Your task to perform on an android device: turn on showing notifications on the lock screen Image 0: 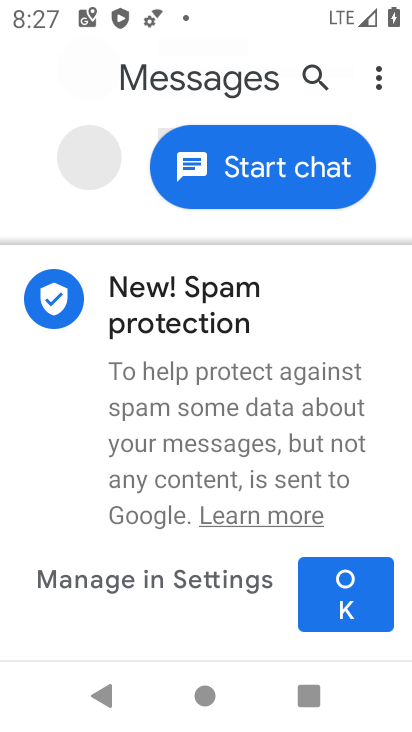
Step 0: press home button
Your task to perform on an android device: turn on showing notifications on the lock screen Image 1: 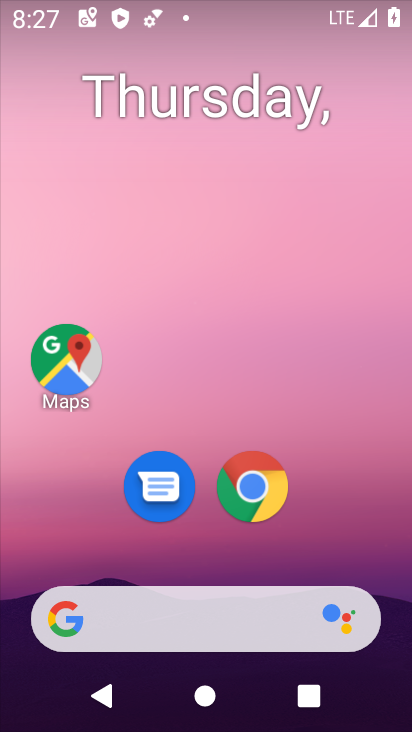
Step 1: drag from (191, 554) to (206, 252)
Your task to perform on an android device: turn on showing notifications on the lock screen Image 2: 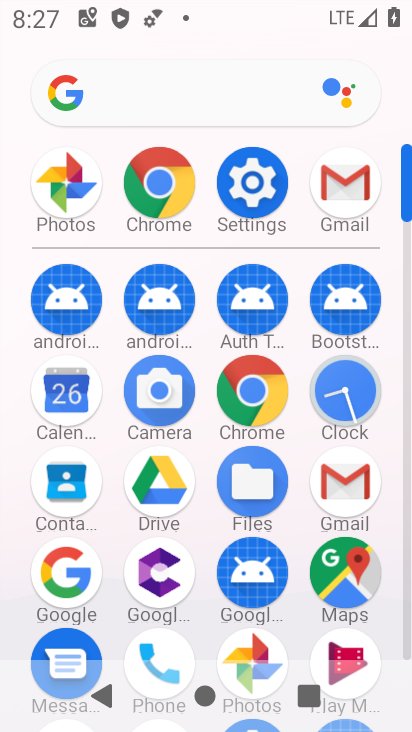
Step 2: click (267, 200)
Your task to perform on an android device: turn on showing notifications on the lock screen Image 3: 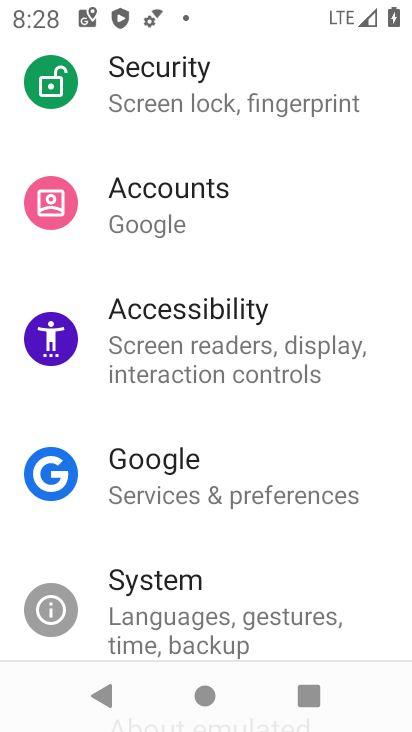
Step 3: drag from (120, 172) to (229, 519)
Your task to perform on an android device: turn on showing notifications on the lock screen Image 4: 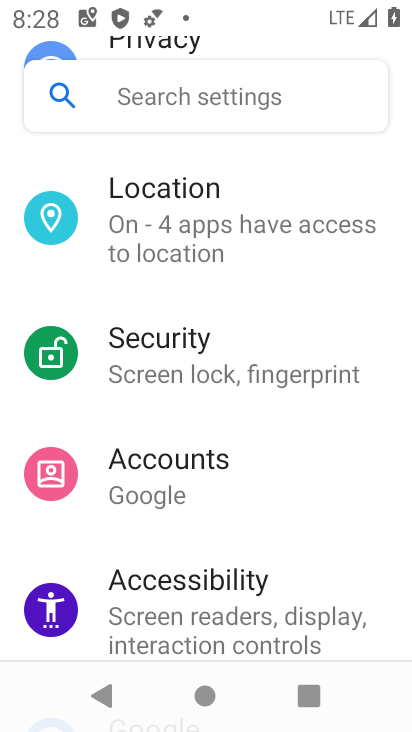
Step 4: drag from (140, 210) to (226, 682)
Your task to perform on an android device: turn on showing notifications on the lock screen Image 5: 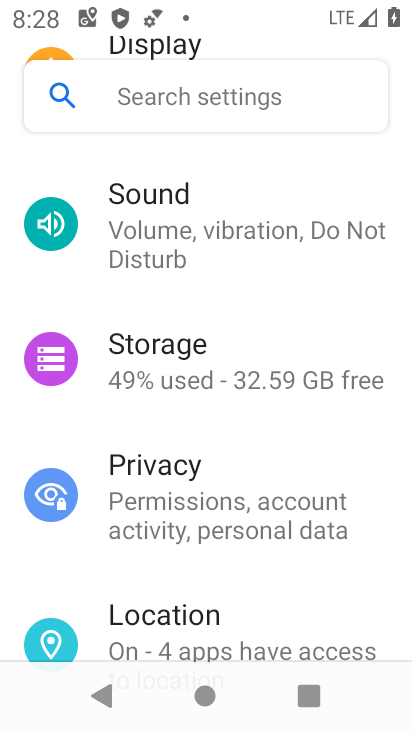
Step 5: drag from (165, 225) to (165, 625)
Your task to perform on an android device: turn on showing notifications on the lock screen Image 6: 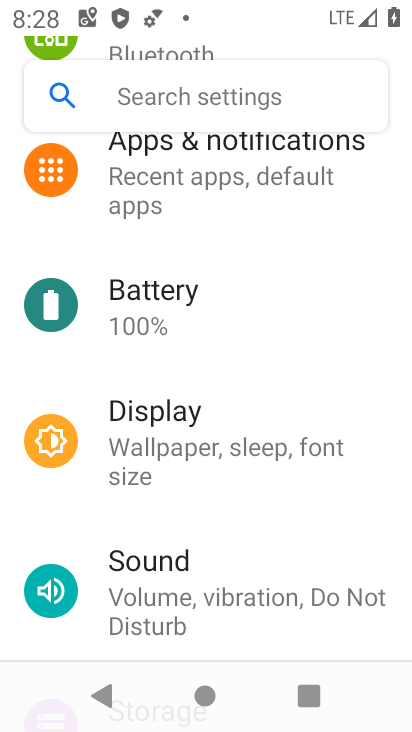
Step 6: click (150, 171)
Your task to perform on an android device: turn on showing notifications on the lock screen Image 7: 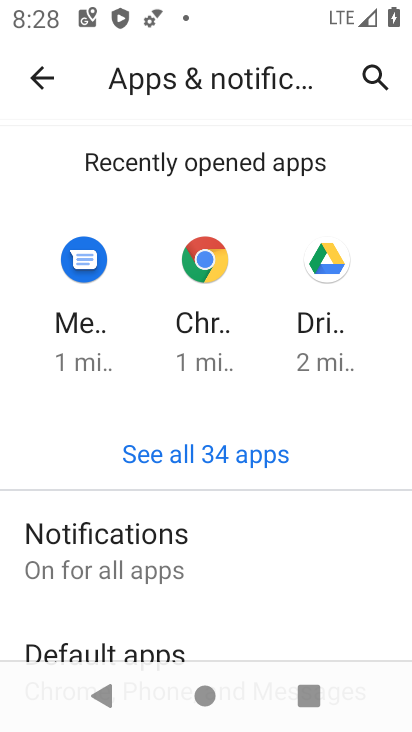
Step 7: click (163, 528)
Your task to perform on an android device: turn on showing notifications on the lock screen Image 8: 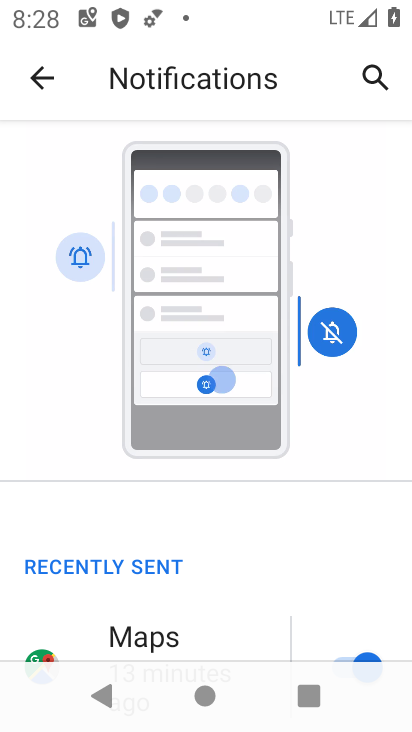
Step 8: drag from (169, 559) to (131, 174)
Your task to perform on an android device: turn on showing notifications on the lock screen Image 9: 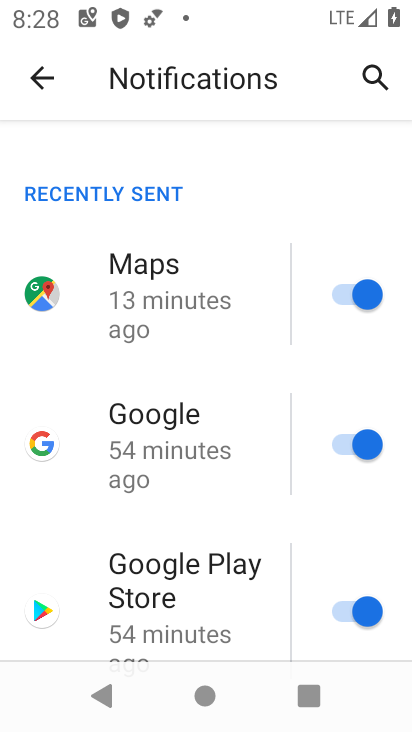
Step 9: drag from (197, 544) to (29, 45)
Your task to perform on an android device: turn on showing notifications on the lock screen Image 10: 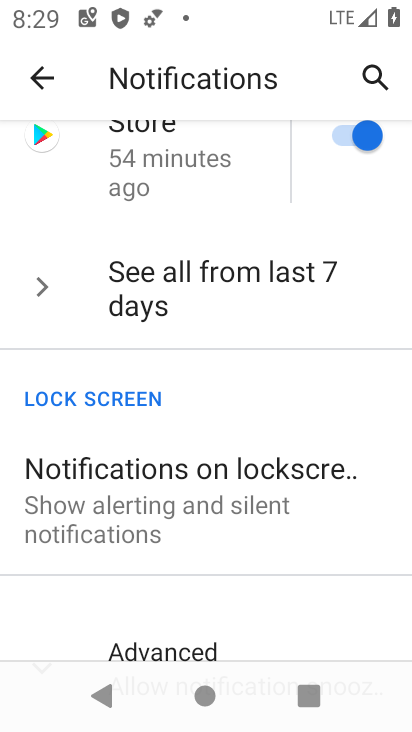
Step 10: click (192, 504)
Your task to perform on an android device: turn on showing notifications on the lock screen Image 11: 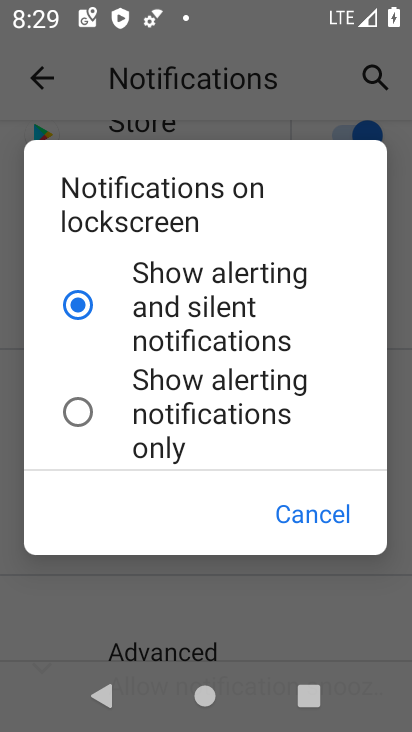
Step 11: task complete